Your task to perform on an android device: visit the assistant section in the google photos Image 0: 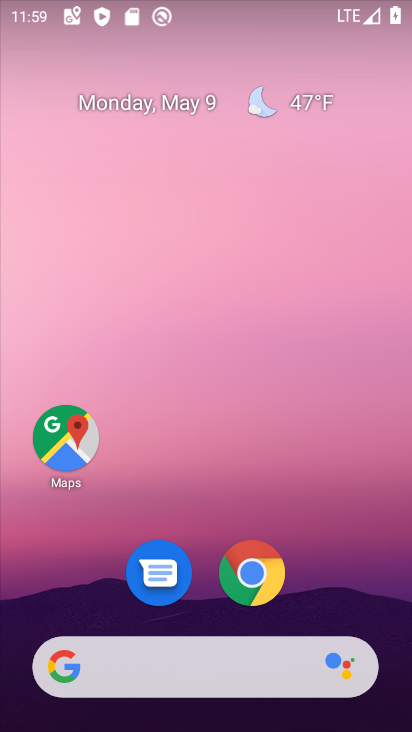
Step 0: drag from (213, 530) to (241, 265)
Your task to perform on an android device: visit the assistant section in the google photos Image 1: 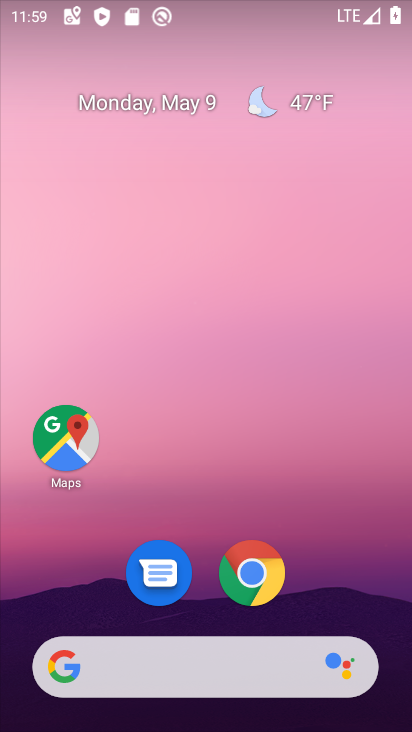
Step 1: drag from (198, 614) to (262, 100)
Your task to perform on an android device: visit the assistant section in the google photos Image 2: 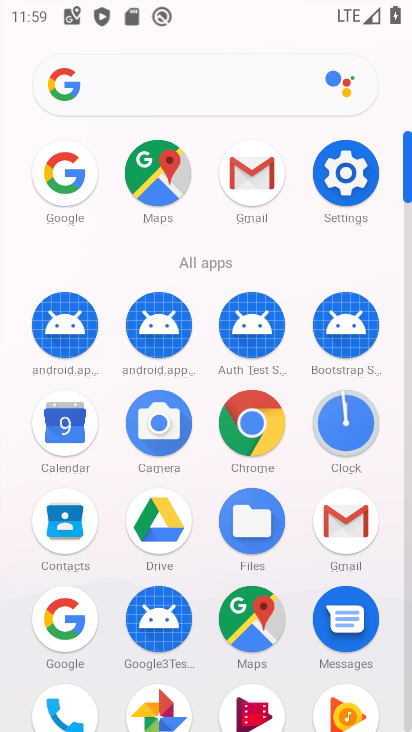
Step 2: click (153, 698)
Your task to perform on an android device: visit the assistant section in the google photos Image 3: 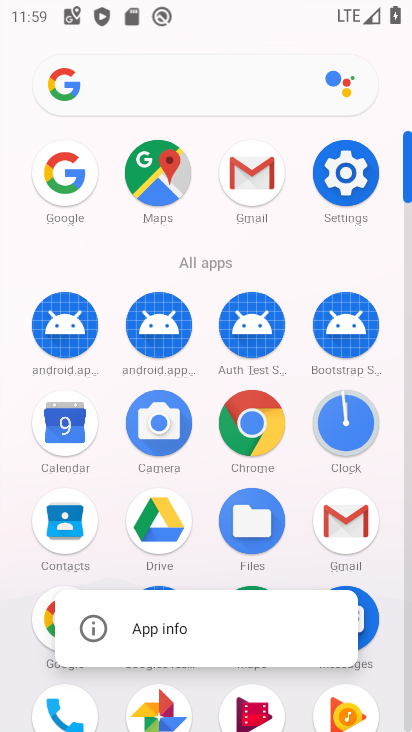
Step 3: click (144, 707)
Your task to perform on an android device: visit the assistant section in the google photos Image 4: 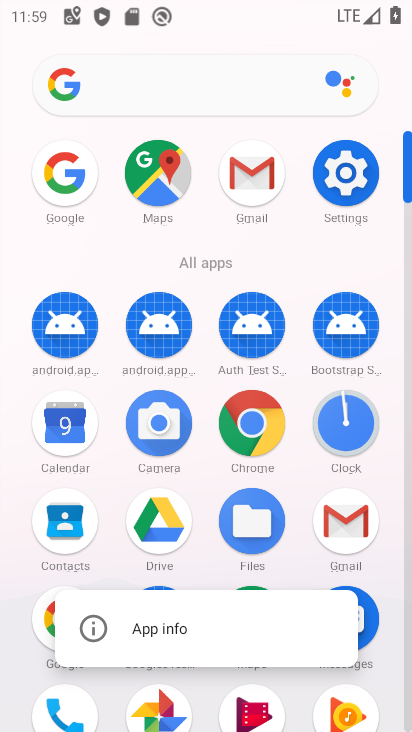
Step 4: click (168, 637)
Your task to perform on an android device: visit the assistant section in the google photos Image 5: 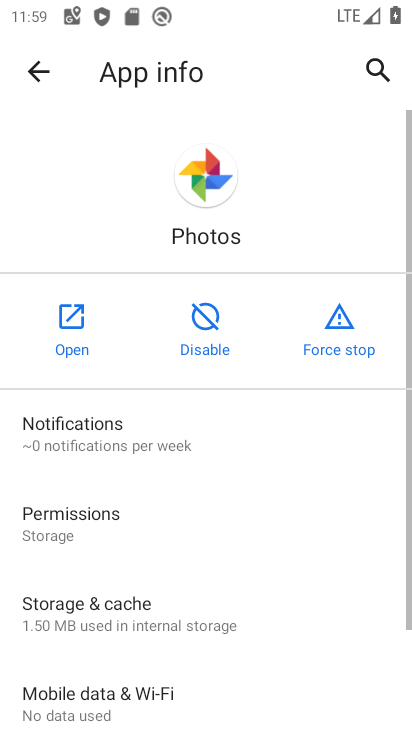
Step 5: click (54, 317)
Your task to perform on an android device: visit the assistant section in the google photos Image 6: 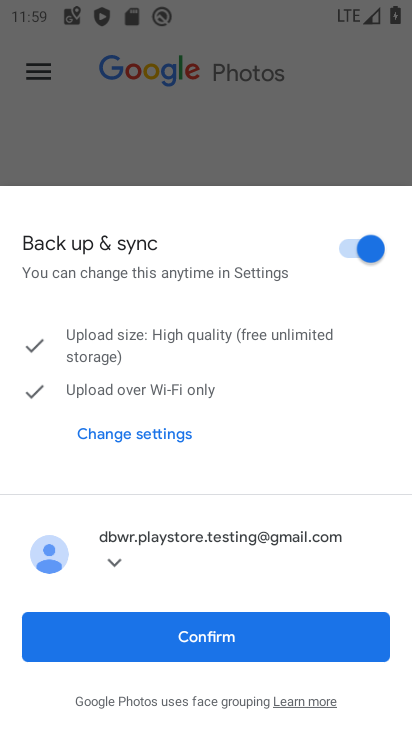
Step 6: click (240, 642)
Your task to perform on an android device: visit the assistant section in the google photos Image 7: 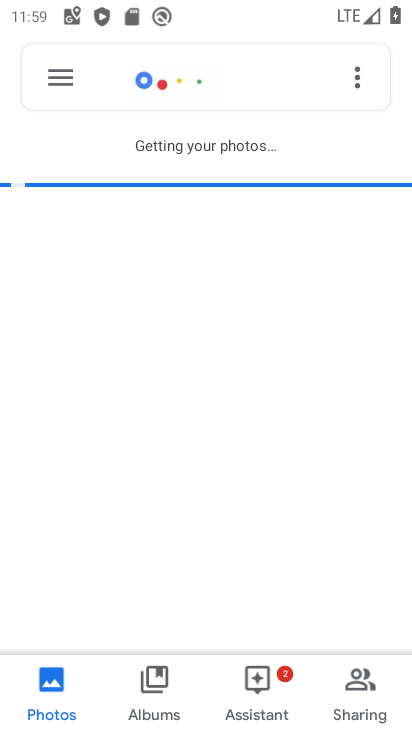
Step 7: click (258, 695)
Your task to perform on an android device: visit the assistant section in the google photos Image 8: 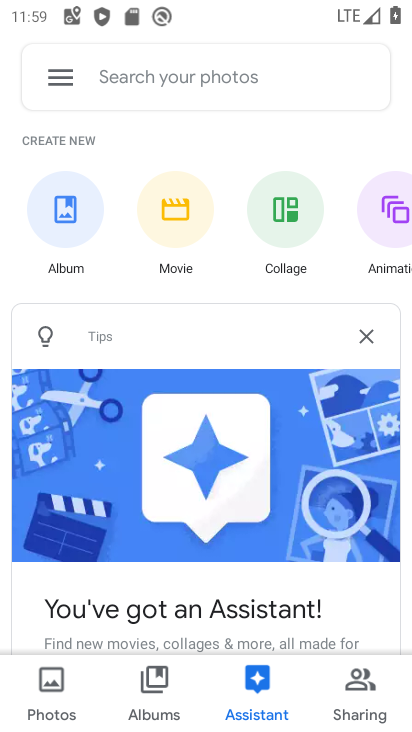
Step 8: task complete